Your task to perform on an android device: Open Android settings Image 0: 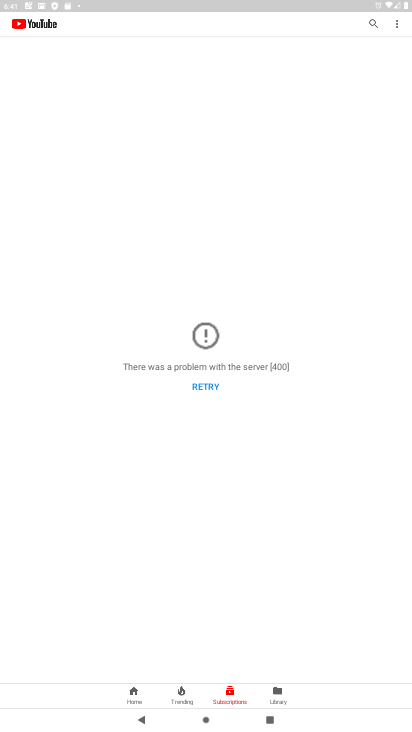
Step 0: press home button
Your task to perform on an android device: Open Android settings Image 1: 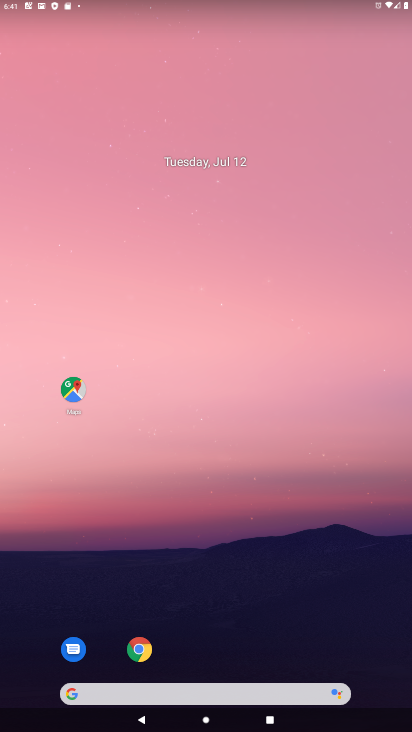
Step 1: drag from (190, 686) to (316, 152)
Your task to perform on an android device: Open Android settings Image 2: 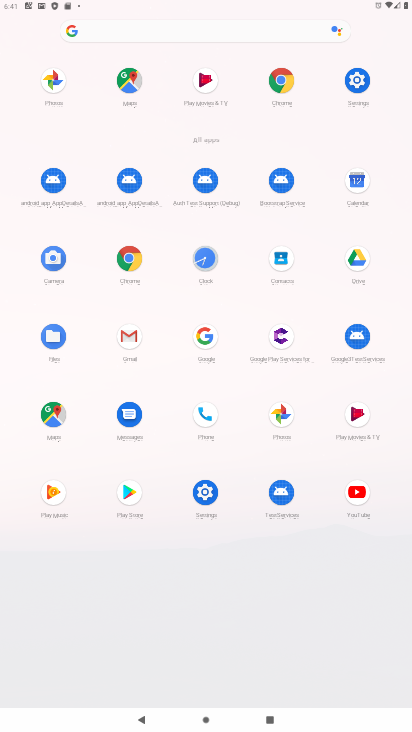
Step 2: click (360, 82)
Your task to perform on an android device: Open Android settings Image 3: 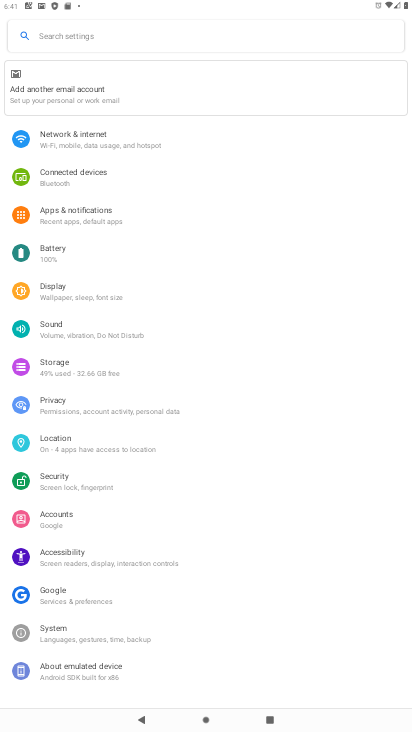
Step 3: task complete